Your task to perform on an android device: Go to battery settings Image 0: 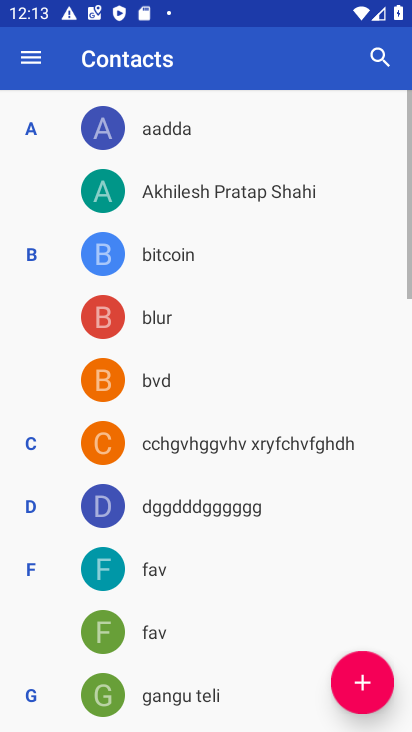
Step 0: press home button
Your task to perform on an android device: Go to battery settings Image 1: 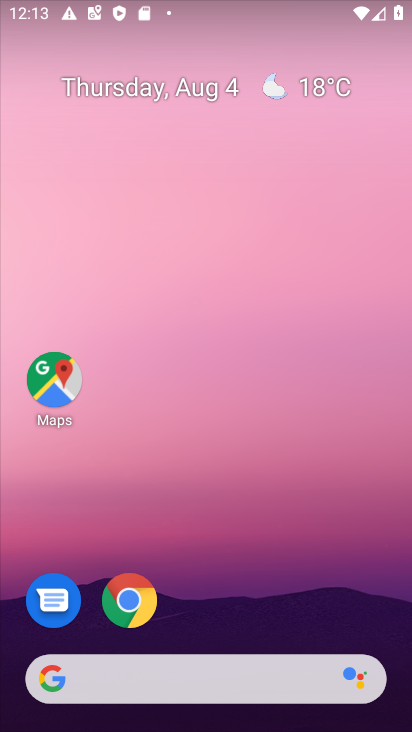
Step 1: drag from (190, 672) to (366, 175)
Your task to perform on an android device: Go to battery settings Image 2: 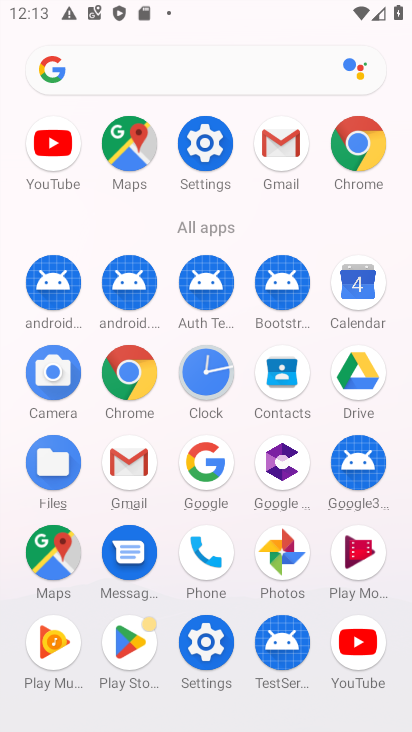
Step 2: click (210, 139)
Your task to perform on an android device: Go to battery settings Image 3: 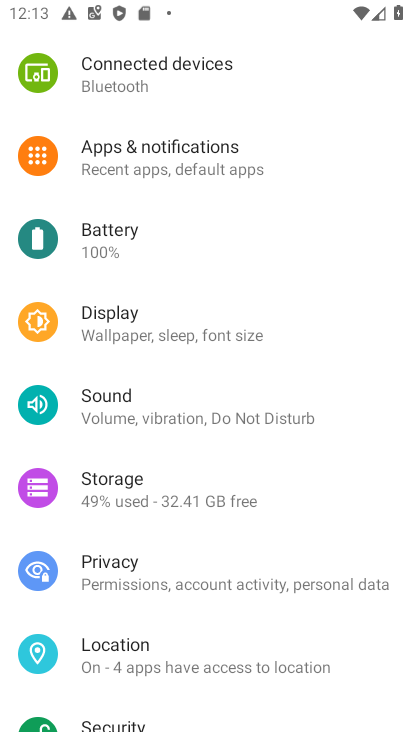
Step 3: click (125, 230)
Your task to perform on an android device: Go to battery settings Image 4: 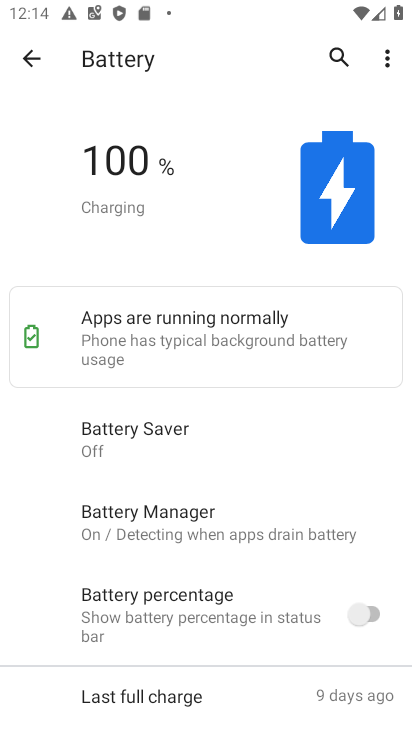
Step 4: task complete